Your task to perform on an android device: What is the news today? Image 0: 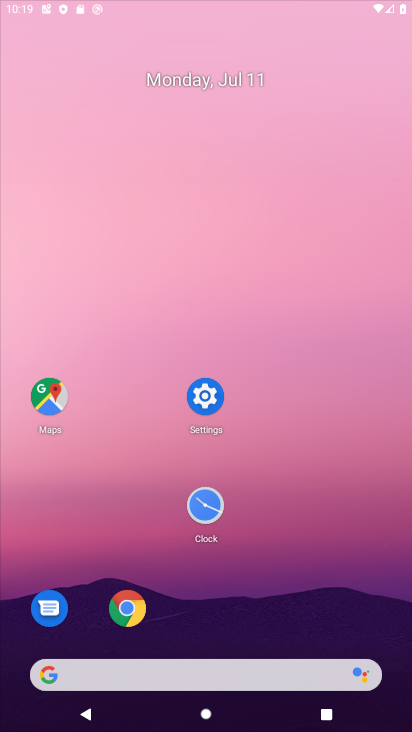
Step 0: click (119, 607)
Your task to perform on an android device: What is the news today? Image 1: 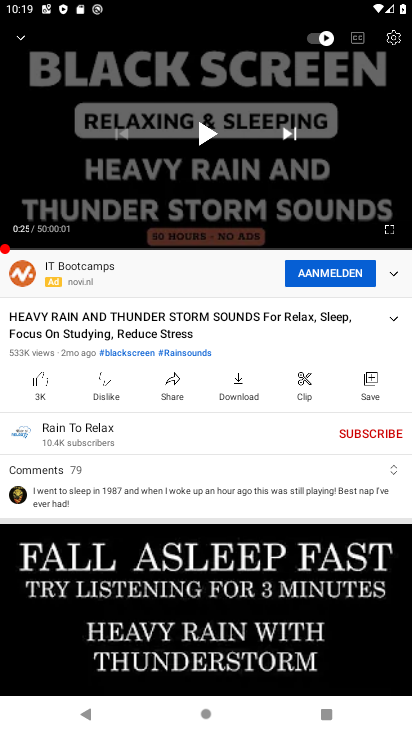
Step 1: task complete